Your task to perform on an android device: Open Google Image 0: 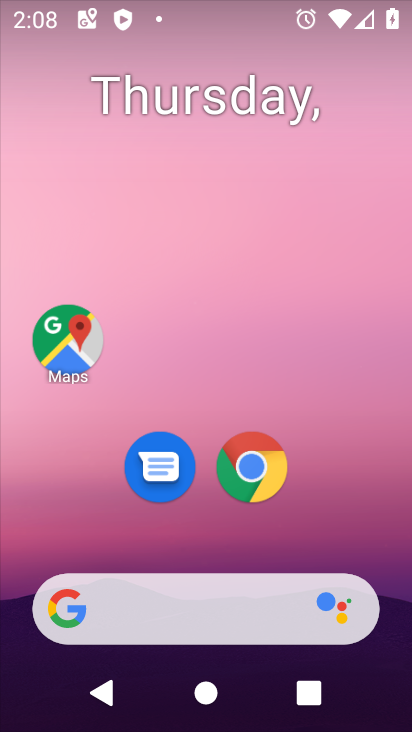
Step 0: drag from (368, 421) to (363, 164)
Your task to perform on an android device: Open Google Image 1: 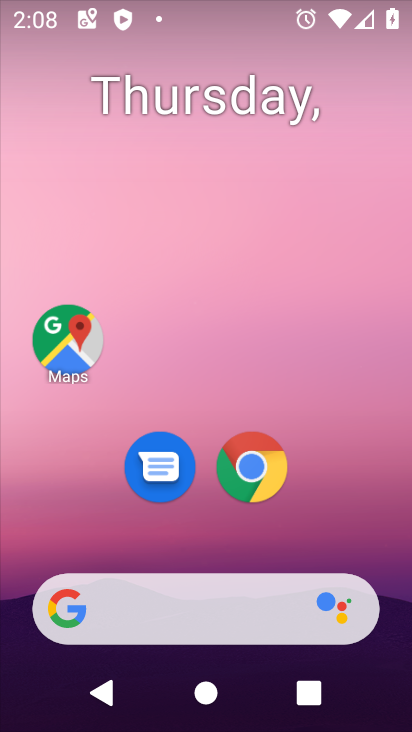
Step 1: drag from (337, 520) to (343, 133)
Your task to perform on an android device: Open Google Image 2: 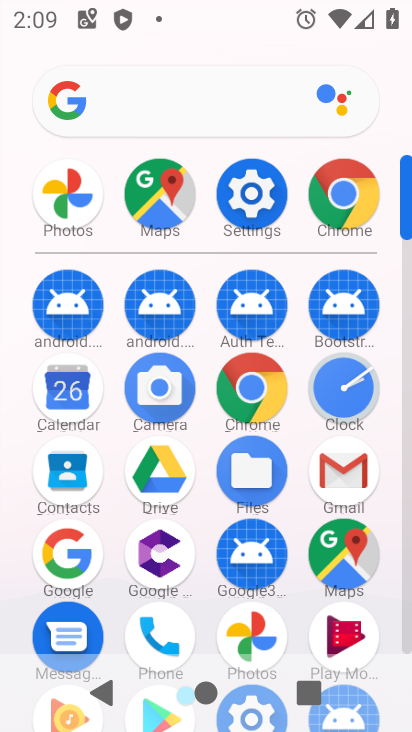
Step 2: click (92, 551)
Your task to perform on an android device: Open Google Image 3: 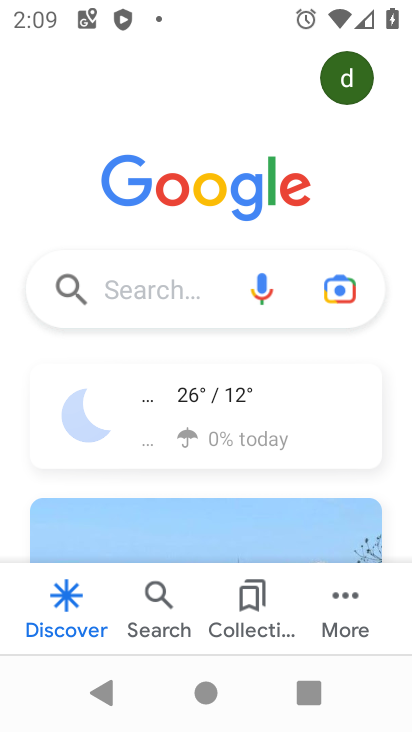
Step 3: task complete